Your task to perform on an android device: Open the phone app and click the voicemail tab. Image 0: 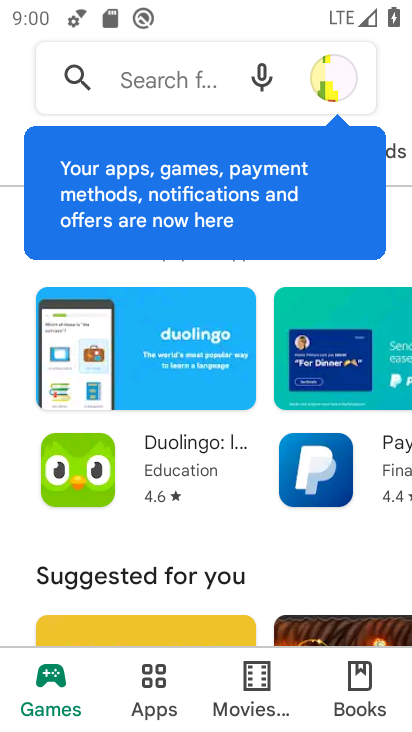
Step 0: press home button
Your task to perform on an android device: Open the phone app and click the voicemail tab. Image 1: 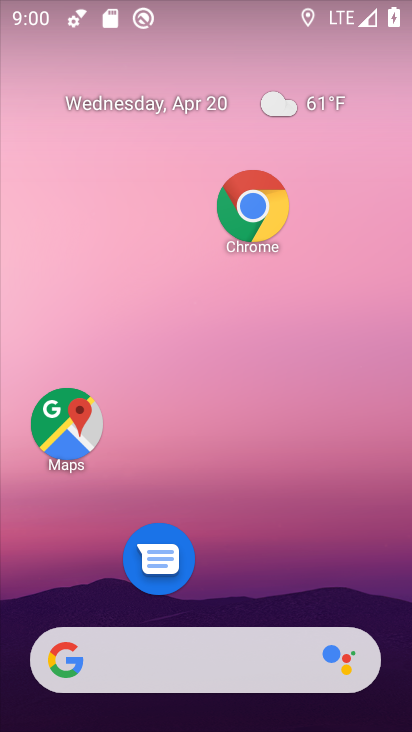
Step 1: drag from (238, 546) to (278, 61)
Your task to perform on an android device: Open the phone app and click the voicemail tab. Image 2: 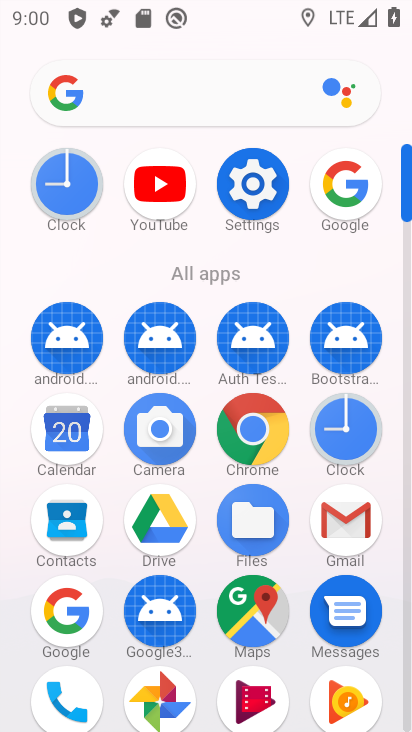
Step 2: drag from (289, 664) to (316, 375)
Your task to perform on an android device: Open the phone app and click the voicemail tab. Image 3: 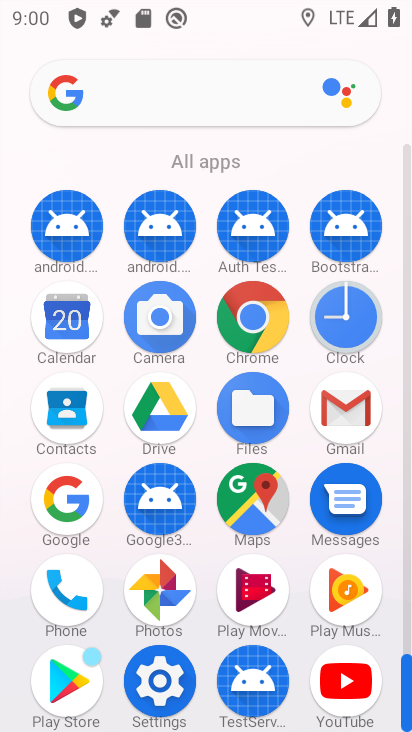
Step 3: click (60, 587)
Your task to perform on an android device: Open the phone app and click the voicemail tab. Image 4: 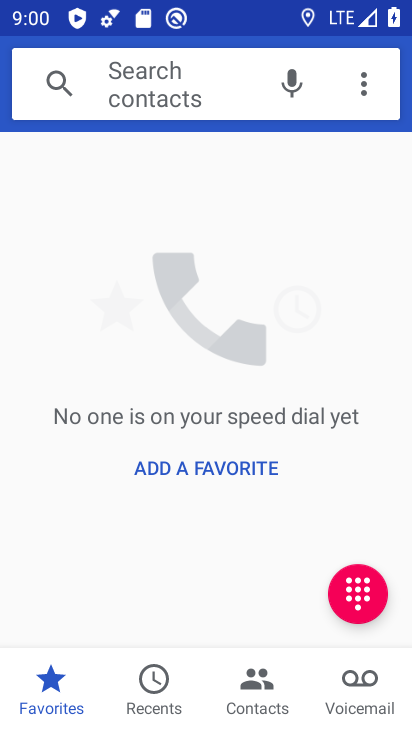
Step 4: click (362, 695)
Your task to perform on an android device: Open the phone app and click the voicemail tab. Image 5: 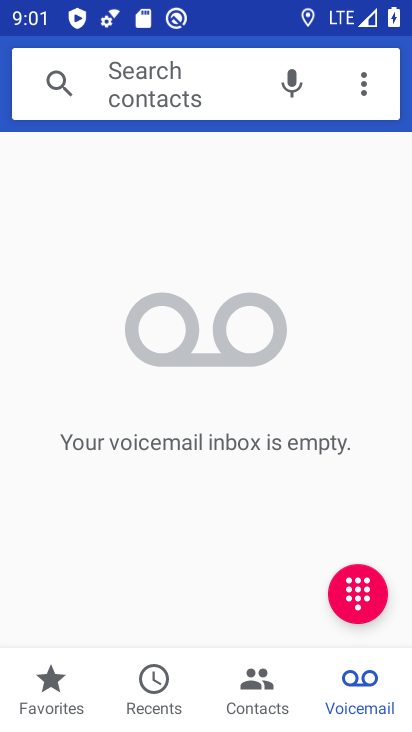
Step 5: task complete